Your task to perform on an android device: Open the Play Movies app and select the watchlist tab. Image 0: 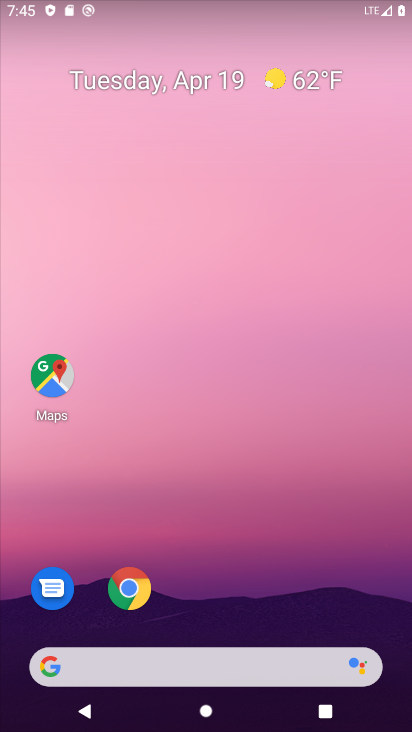
Step 0: drag from (213, 566) to (97, 63)
Your task to perform on an android device: Open the Play Movies app and select the watchlist tab. Image 1: 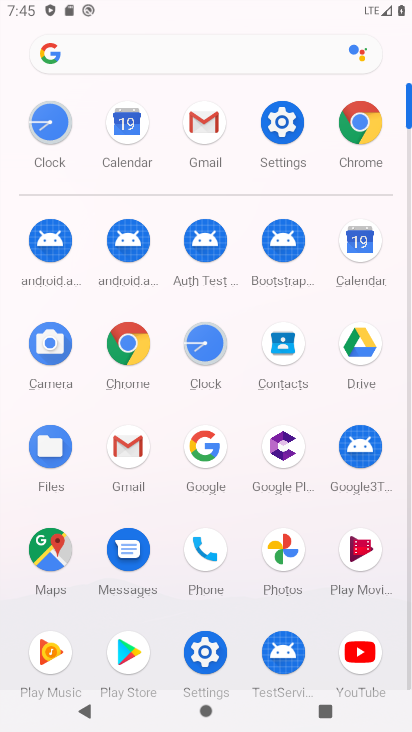
Step 1: click (356, 555)
Your task to perform on an android device: Open the Play Movies app and select the watchlist tab. Image 2: 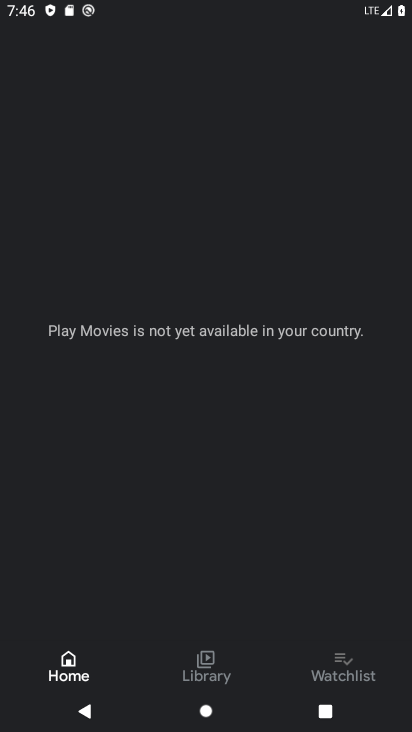
Step 2: click (348, 670)
Your task to perform on an android device: Open the Play Movies app and select the watchlist tab. Image 3: 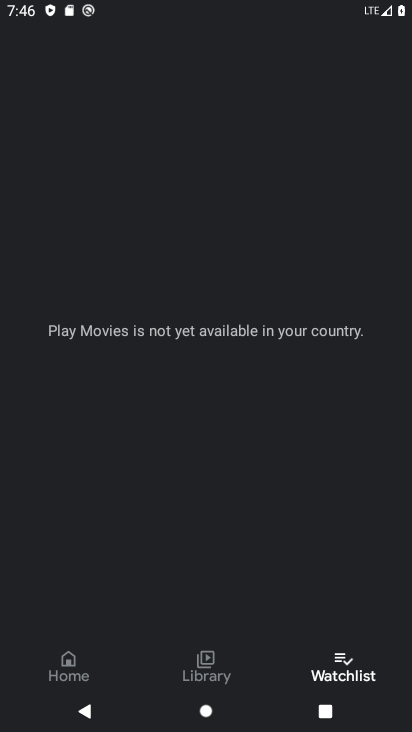
Step 3: task complete